Your task to perform on an android device: Open Reddit.com Image 0: 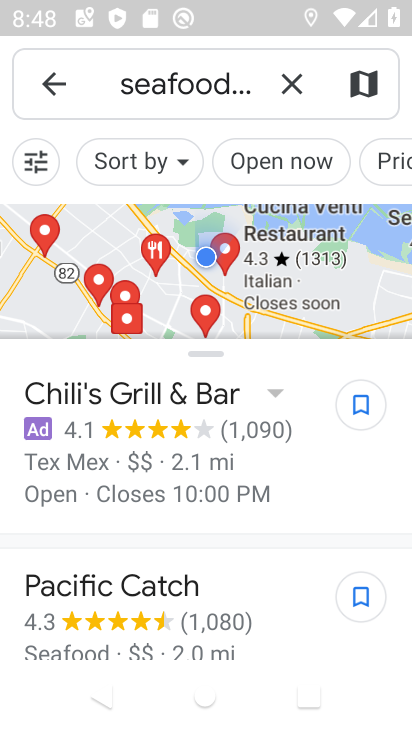
Step 0: press back button
Your task to perform on an android device: Open Reddit.com Image 1: 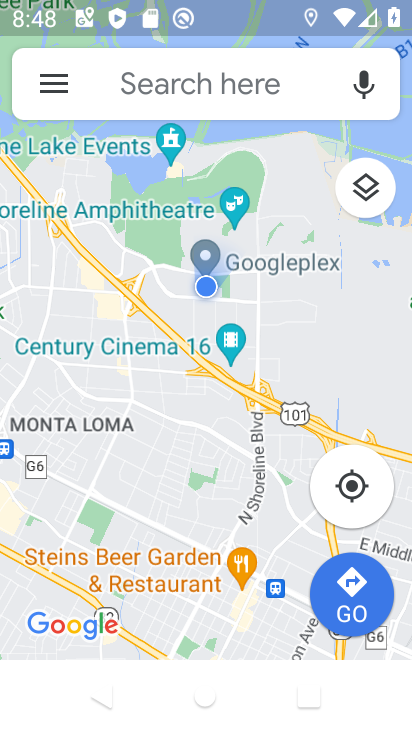
Step 1: press back button
Your task to perform on an android device: Open Reddit.com Image 2: 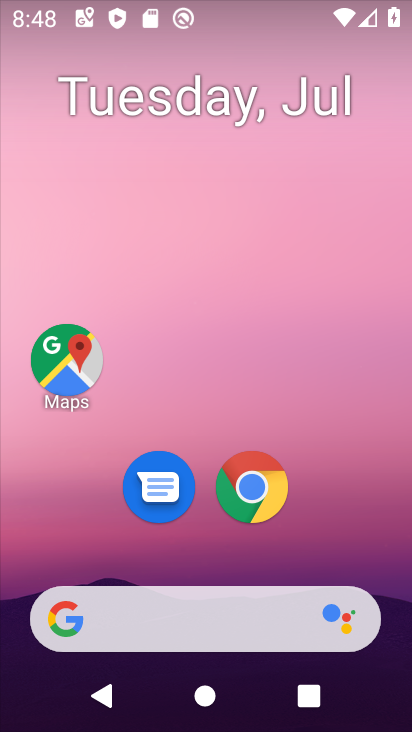
Step 2: click (247, 477)
Your task to perform on an android device: Open Reddit.com Image 3: 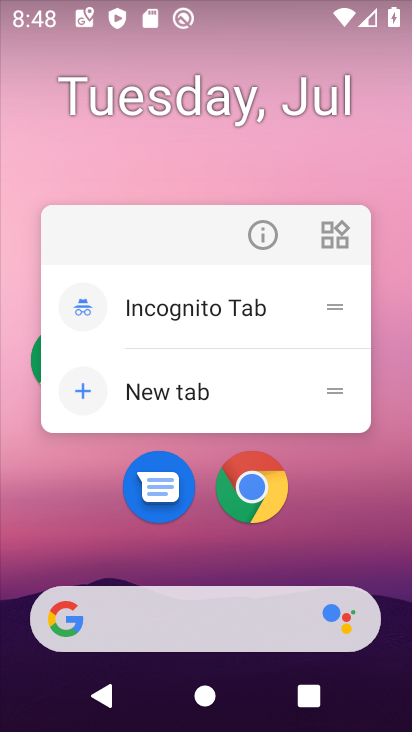
Step 3: click (252, 486)
Your task to perform on an android device: Open Reddit.com Image 4: 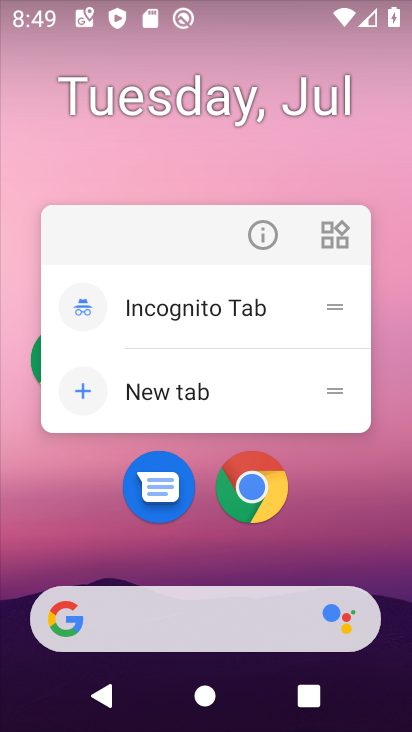
Step 4: click (250, 492)
Your task to perform on an android device: Open Reddit.com Image 5: 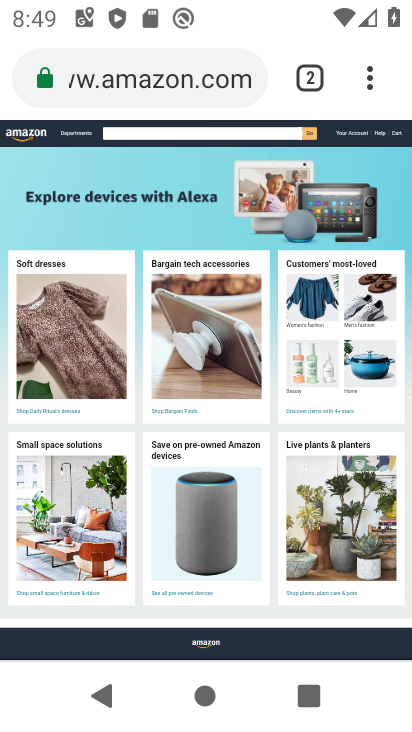
Step 5: click (310, 66)
Your task to perform on an android device: Open Reddit.com Image 6: 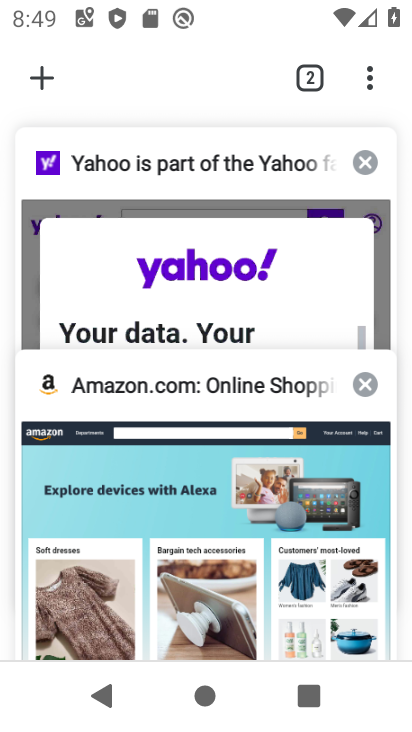
Step 6: click (30, 79)
Your task to perform on an android device: Open Reddit.com Image 7: 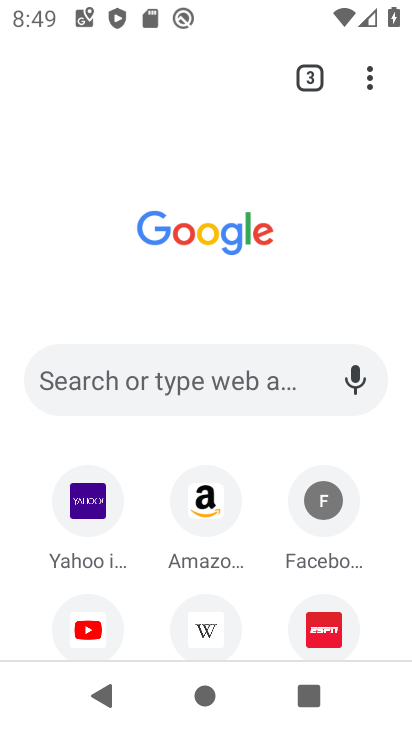
Step 7: click (145, 374)
Your task to perform on an android device: Open Reddit.com Image 8: 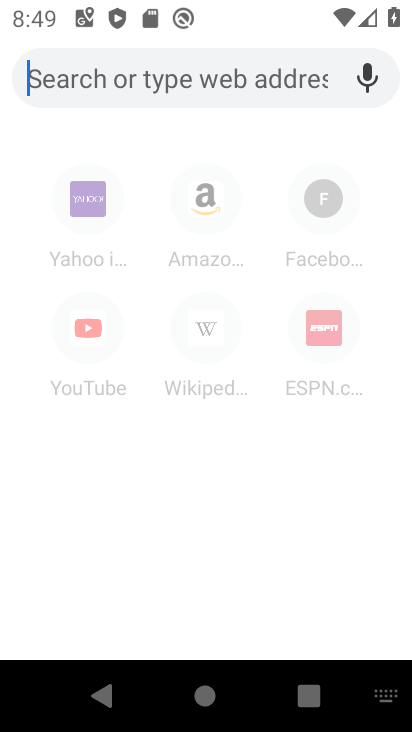
Step 8: click (147, 89)
Your task to perform on an android device: Open Reddit.com Image 9: 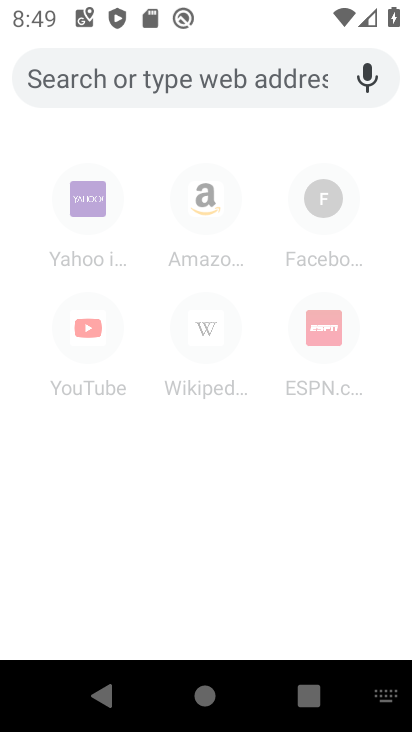
Step 9: type "reddit.com"
Your task to perform on an android device: Open Reddit.com Image 10: 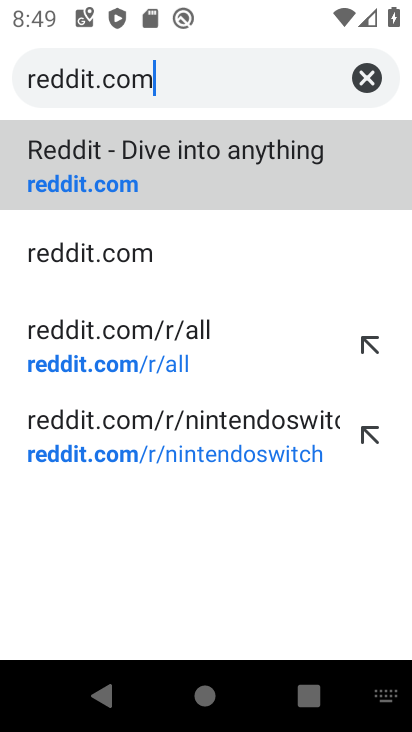
Step 10: click (127, 151)
Your task to perform on an android device: Open Reddit.com Image 11: 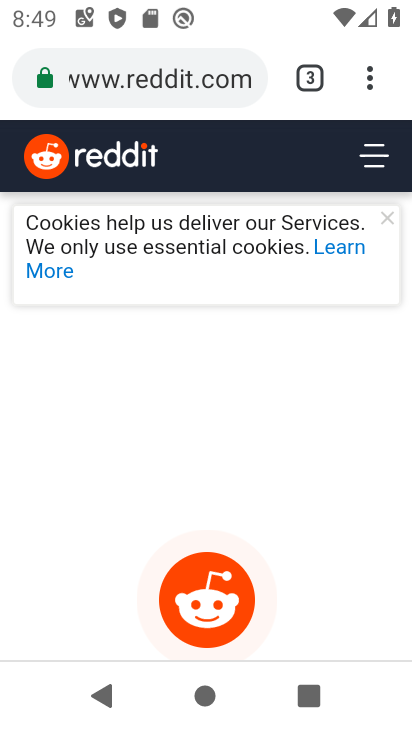
Step 11: task complete